Your task to perform on an android device: Open Google Image 0: 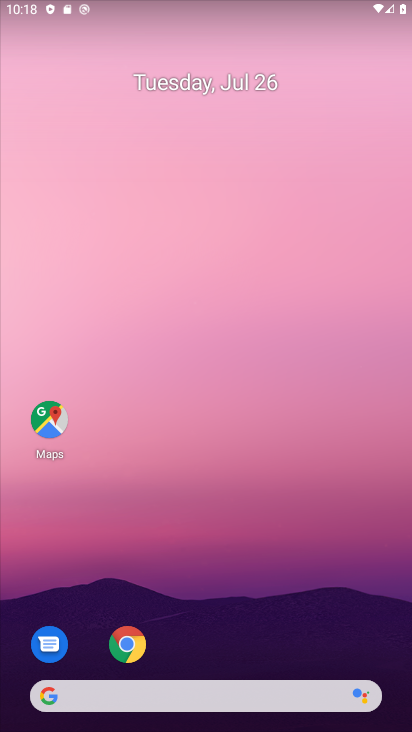
Step 0: click (299, 670)
Your task to perform on an android device: Open Google Image 1: 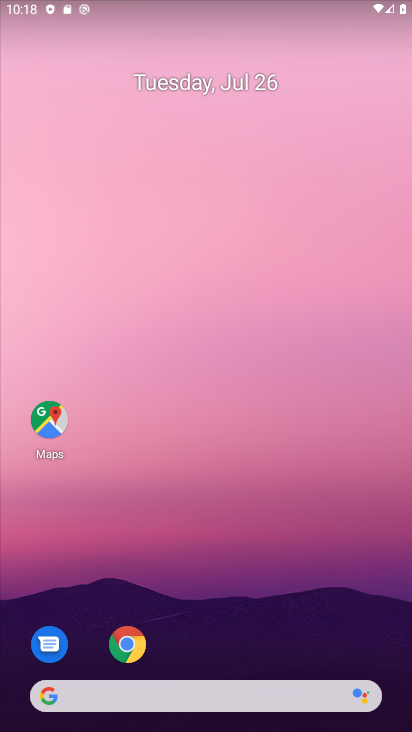
Step 1: drag from (293, 632) to (261, 115)
Your task to perform on an android device: Open Google Image 2: 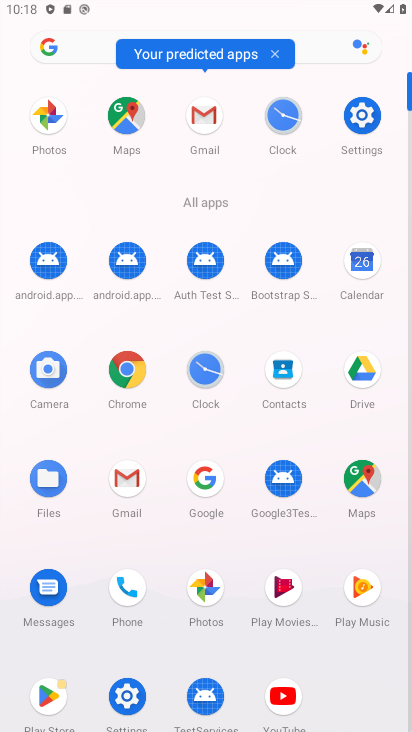
Step 2: click (189, 485)
Your task to perform on an android device: Open Google Image 3: 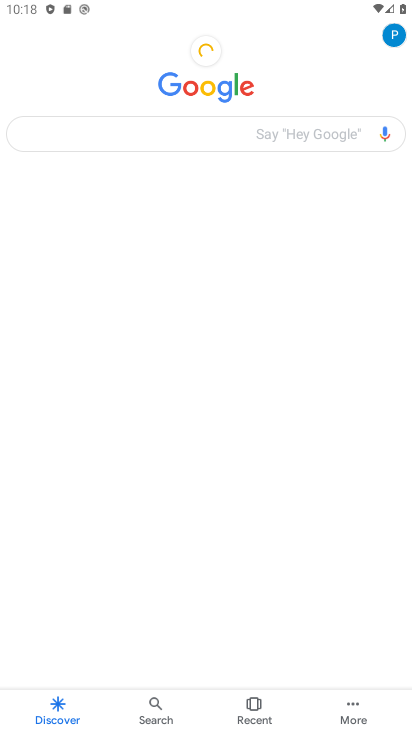
Step 3: task complete